Your task to perform on an android device: open app "Pandora - Music & Podcasts" Image 0: 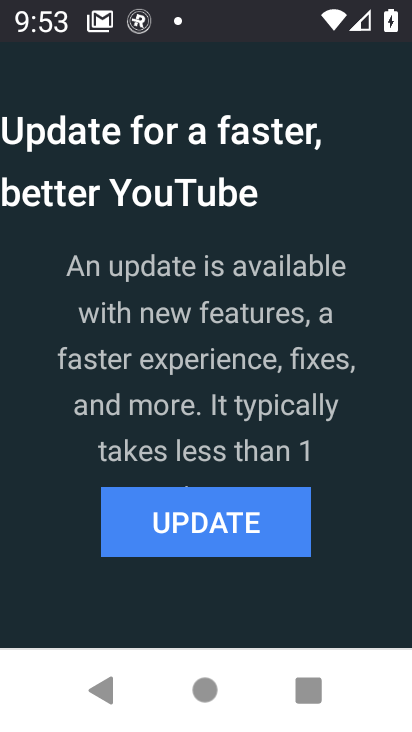
Step 0: drag from (225, 648) to (291, 185)
Your task to perform on an android device: open app "Pandora - Music & Podcasts" Image 1: 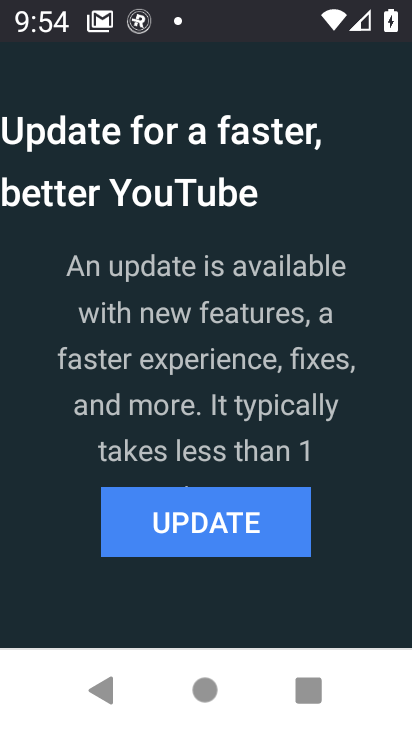
Step 1: press home button
Your task to perform on an android device: open app "Pandora - Music & Podcasts" Image 2: 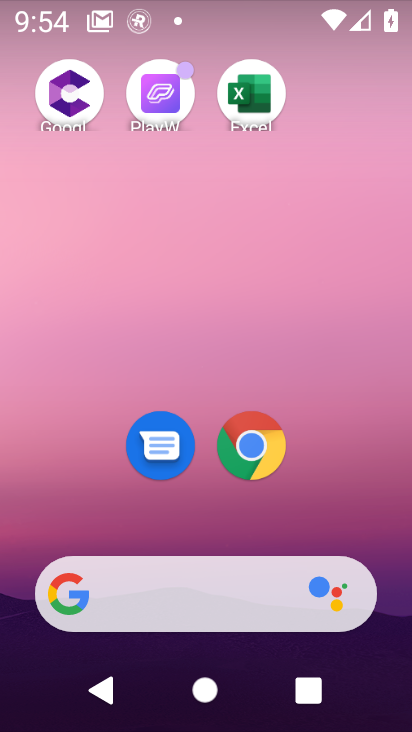
Step 2: click (245, 4)
Your task to perform on an android device: open app "Pandora - Music & Podcasts" Image 3: 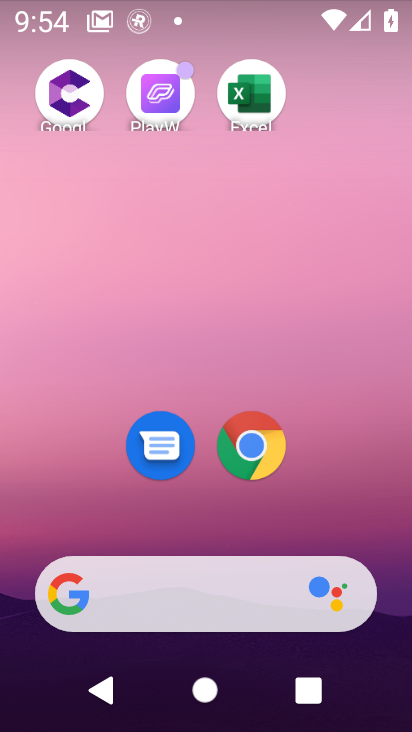
Step 3: drag from (188, 566) to (247, 185)
Your task to perform on an android device: open app "Pandora - Music & Podcasts" Image 4: 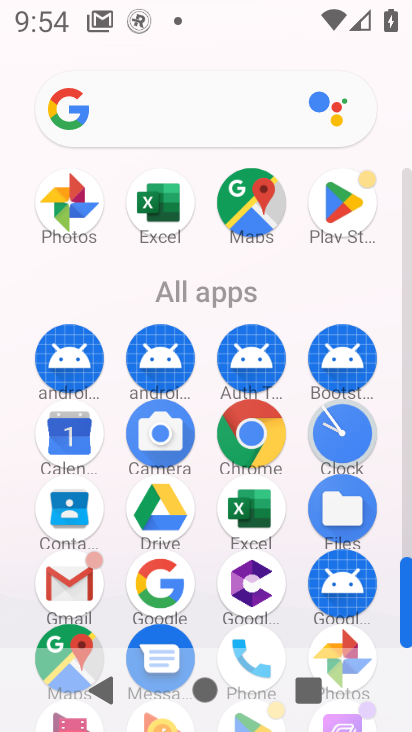
Step 4: click (329, 250)
Your task to perform on an android device: open app "Pandora - Music & Podcasts" Image 5: 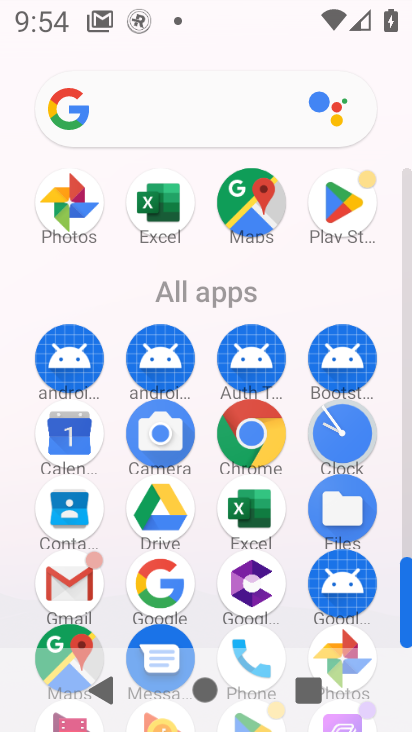
Step 5: click (339, 215)
Your task to perform on an android device: open app "Pandora - Music & Podcasts" Image 6: 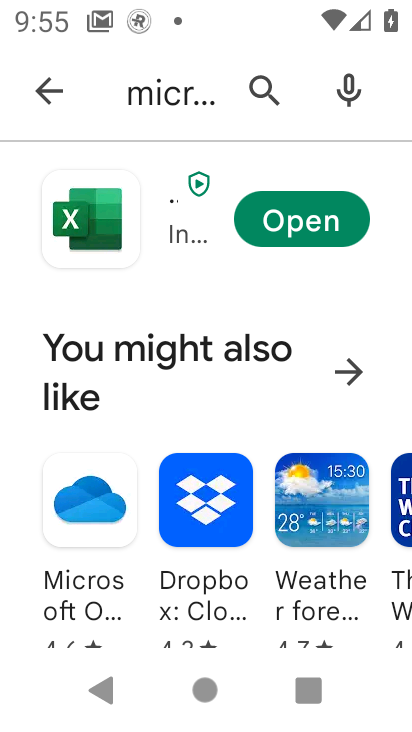
Step 6: click (50, 105)
Your task to perform on an android device: open app "Pandora - Music & Podcasts" Image 7: 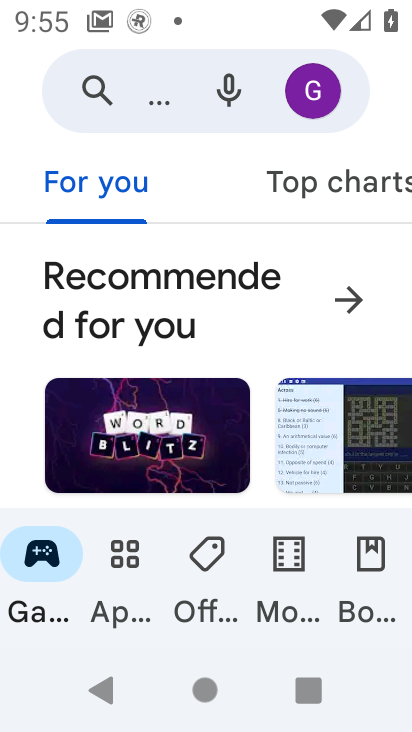
Step 7: click (87, 90)
Your task to perform on an android device: open app "Pandora - Music & Podcasts" Image 8: 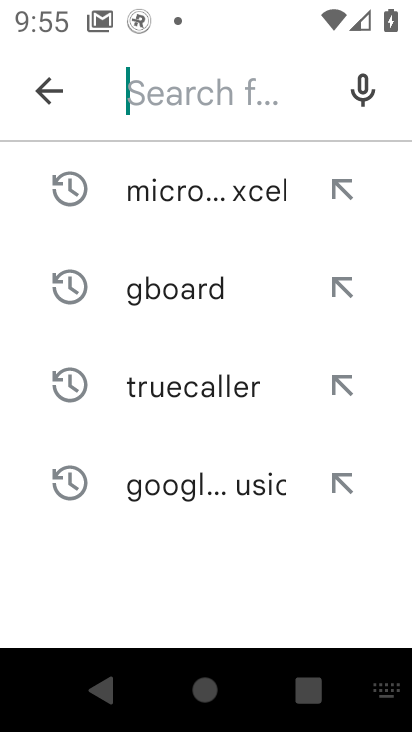
Step 8: type "Pandora - Music & Podcasts"
Your task to perform on an android device: open app "Pandora - Music & Podcasts" Image 9: 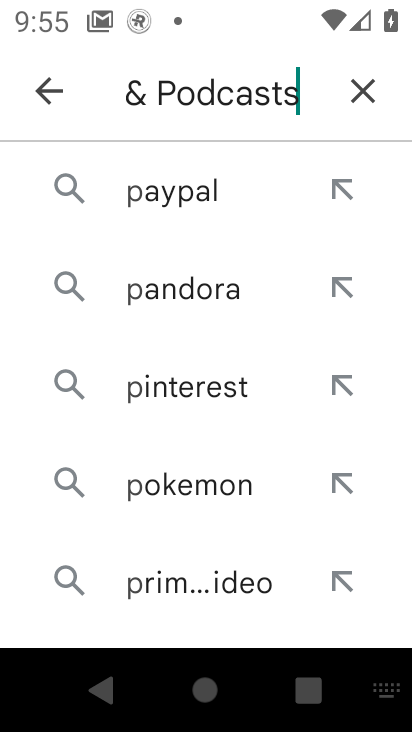
Step 9: type ""
Your task to perform on an android device: open app "Pandora - Music & Podcasts" Image 10: 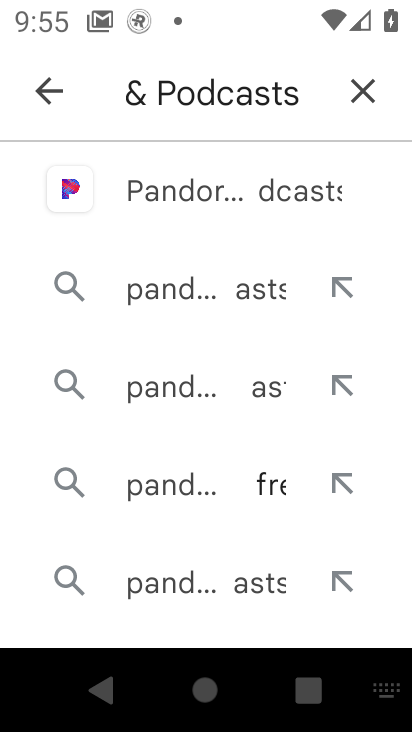
Step 10: click (246, 208)
Your task to perform on an android device: open app "Pandora - Music & Podcasts" Image 11: 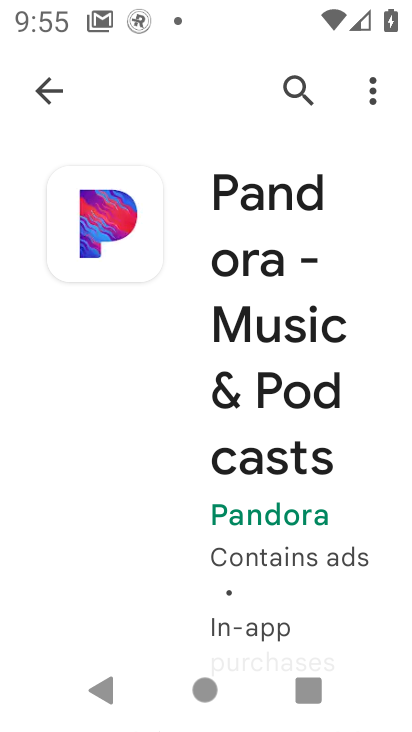
Step 11: task complete